Your task to perform on an android device: turn pop-ups on in chrome Image 0: 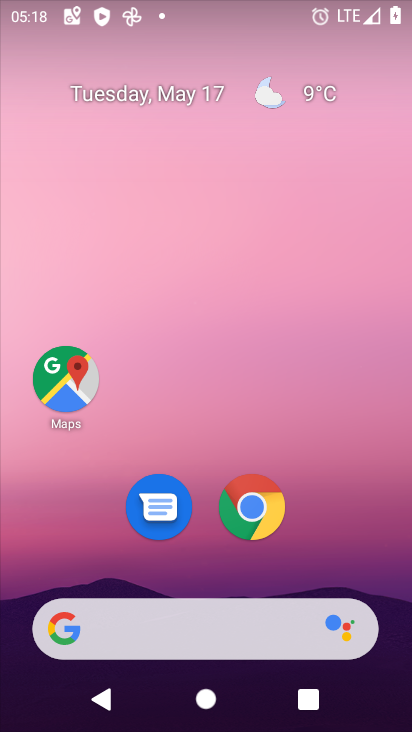
Step 0: click (268, 499)
Your task to perform on an android device: turn pop-ups on in chrome Image 1: 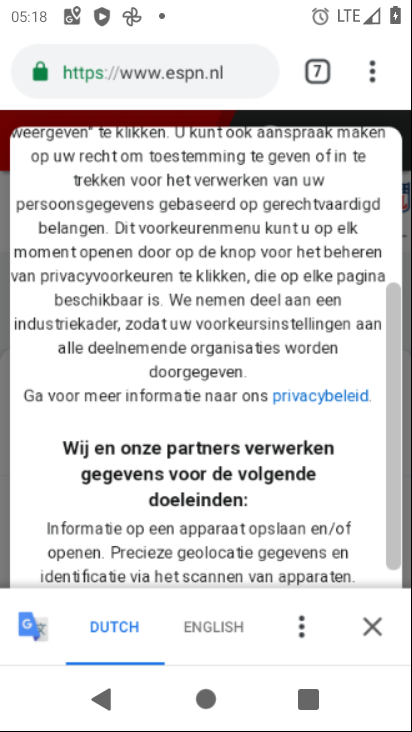
Step 1: click (362, 64)
Your task to perform on an android device: turn pop-ups on in chrome Image 2: 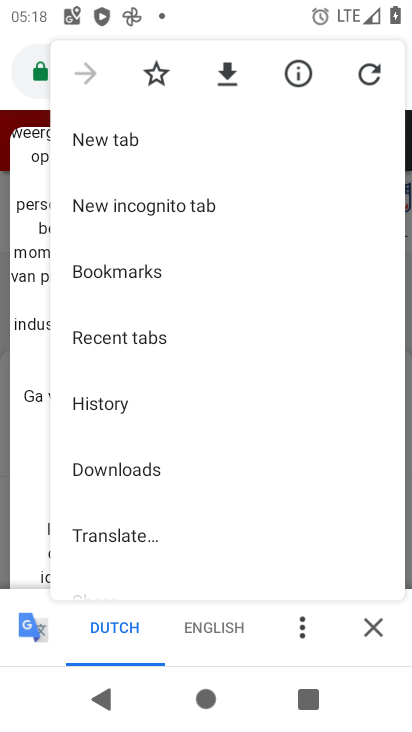
Step 2: drag from (247, 534) to (207, 130)
Your task to perform on an android device: turn pop-ups on in chrome Image 3: 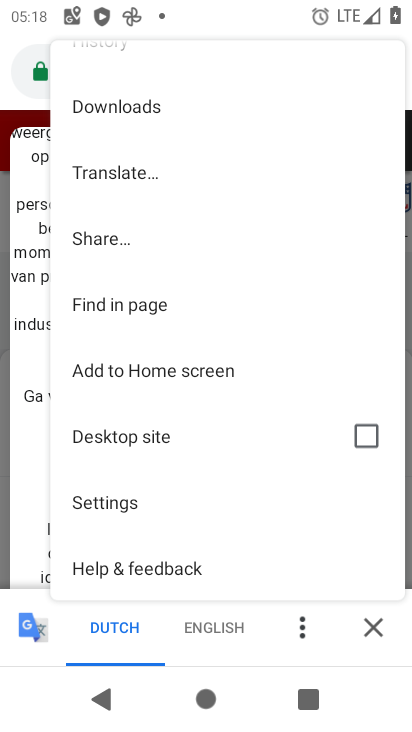
Step 3: drag from (220, 459) to (218, 223)
Your task to perform on an android device: turn pop-ups on in chrome Image 4: 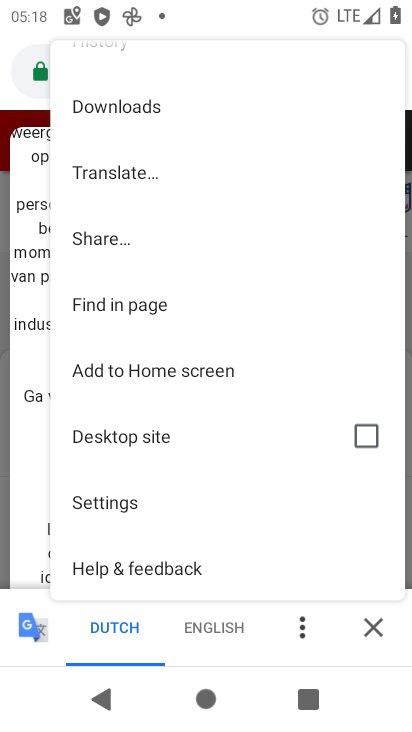
Step 4: click (157, 509)
Your task to perform on an android device: turn pop-ups on in chrome Image 5: 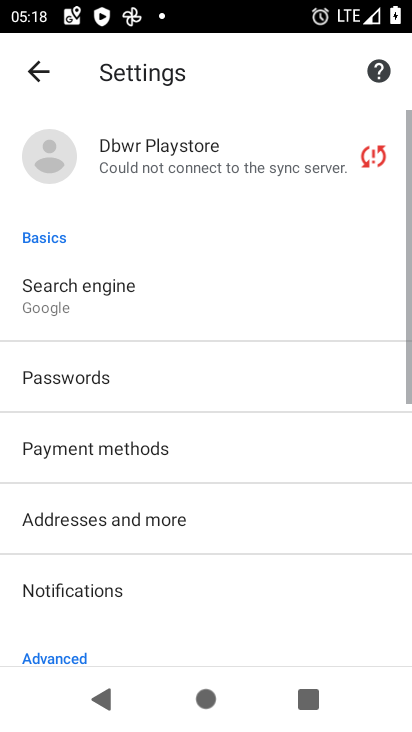
Step 5: drag from (247, 501) to (243, 147)
Your task to perform on an android device: turn pop-ups on in chrome Image 6: 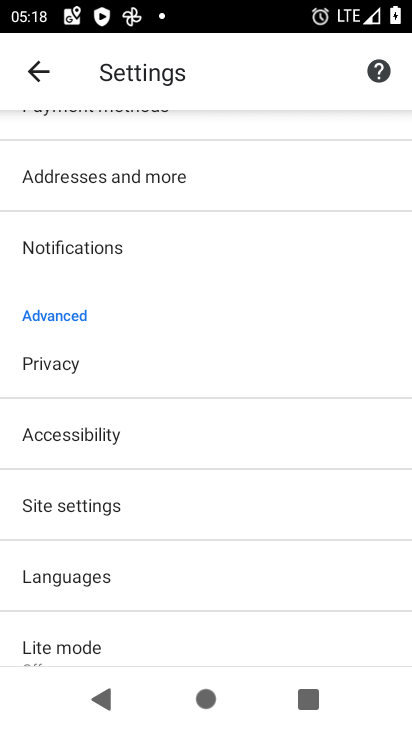
Step 6: drag from (202, 546) to (211, 268)
Your task to perform on an android device: turn pop-ups on in chrome Image 7: 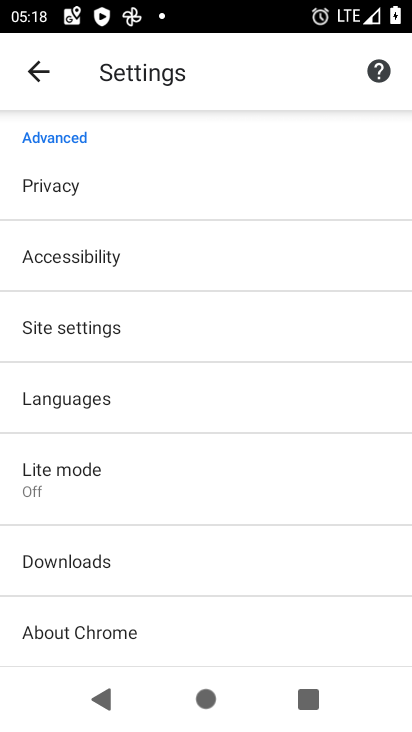
Step 7: click (178, 331)
Your task to perform on an android device: turn pop-ups on in chrome Image 8: 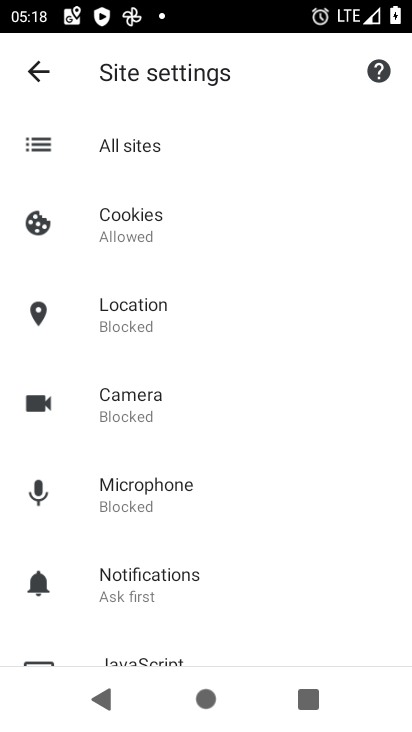
Step 8: drag from (251, 575) to (246, 207)
Your task to perform on an android device: turn pop-ups on in chrome Image 9: 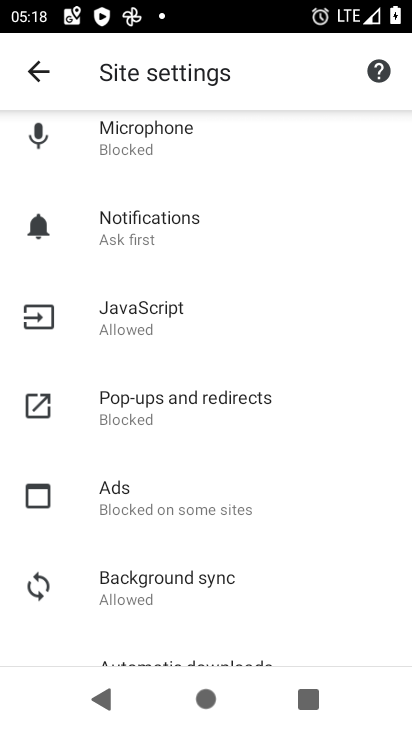
Step 9: click (214, 394)
Your task to perform on an android device: turn pop-ups on in chrome Image 10: 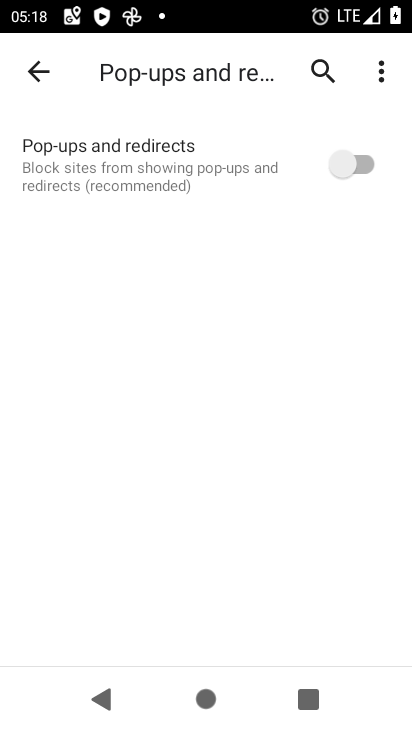
Step 10: click (369, 158)
Your task to perform on an android device: turn pop-ups on in chrome Image 11: 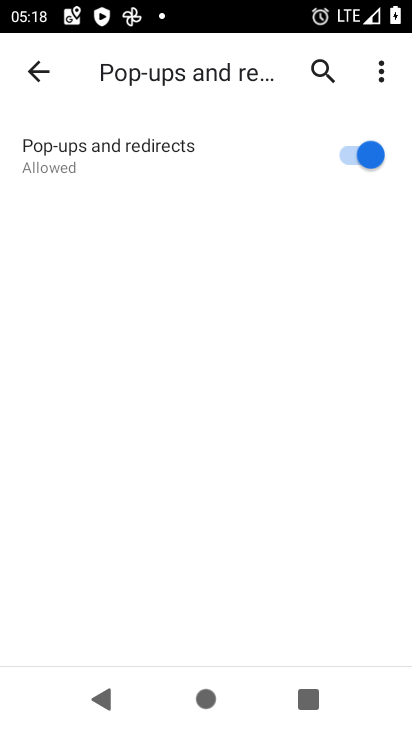
Step 11: task complete